Your task to perform on an android device: Open Maps and search for coffee Image 0: 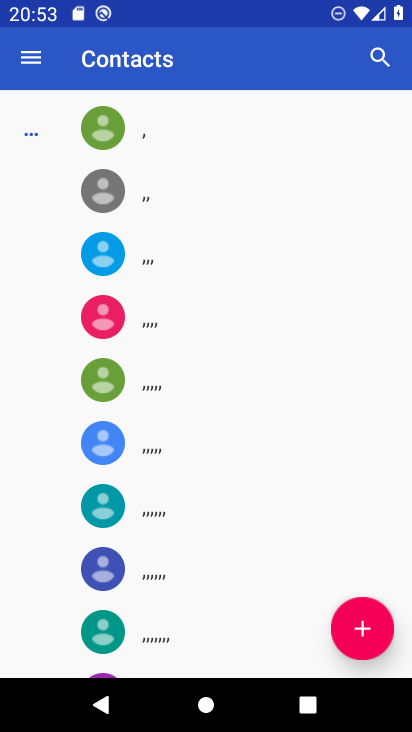
Step 0: press home button
Your task to perform on an android device: Open Maps and search for coffee Image 1: 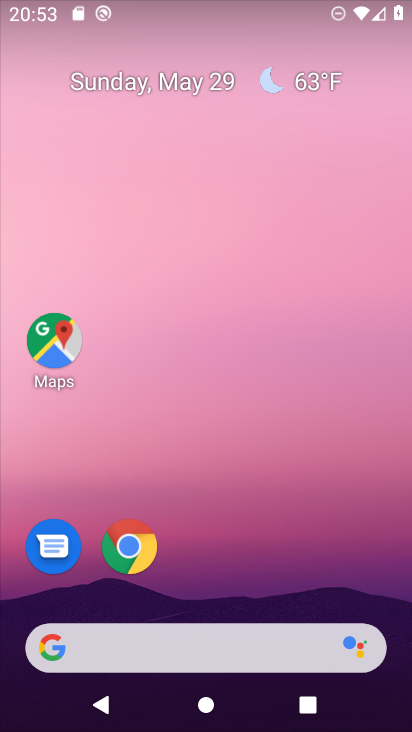
Step 1: click (53, 342)
Your task to perform on an android device: Open Maps and search for coffee Image 2: 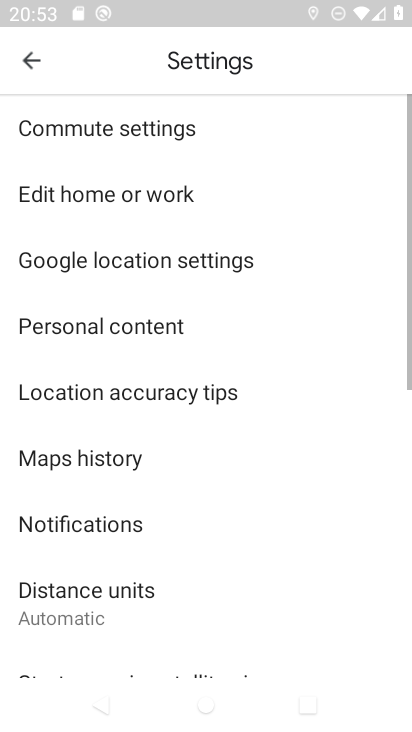
Step 2: click (27, 57)
Your task to perform on an android device: Open Maps and search for coffee Image 3: 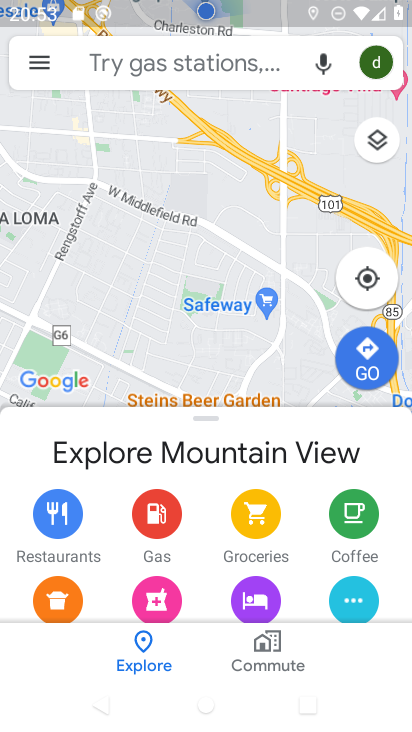
Step 3: click (205, 66)
Your task to perform on an android device: Open Maps and search for coffee Image 4: 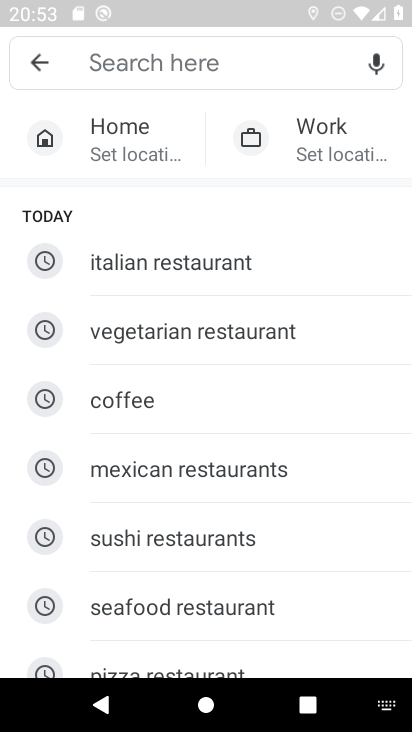
Step 4: click (165, 402)
Your task to perform on an android device: Open Maps and search for coffee Image 5: 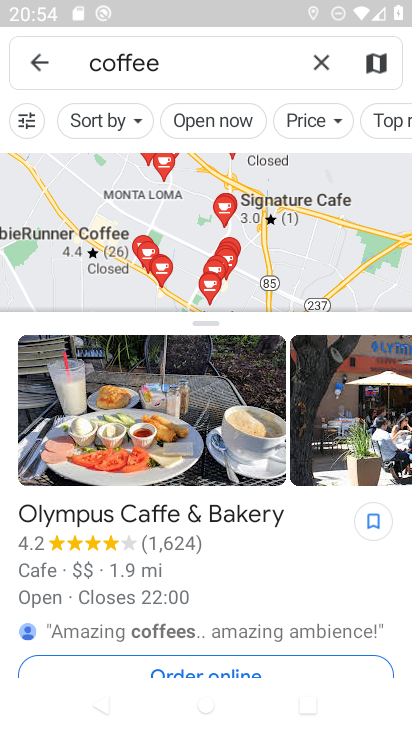
Step 5: task complete